Your task to perform on an android device: Show me popular videos on Youtube Image 0: 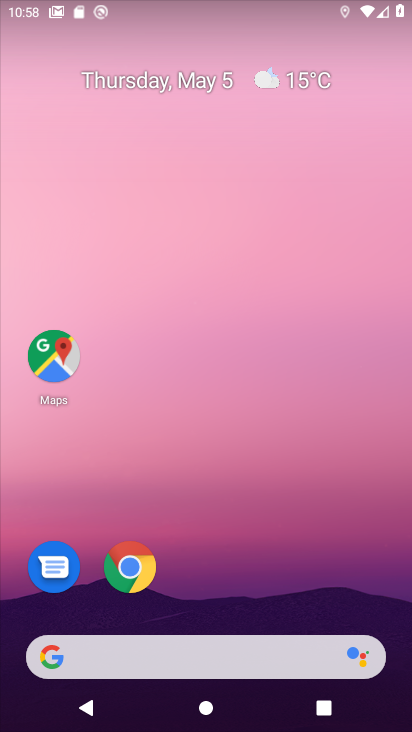
Step 0: drag from (350, 605) to (403, 0)
Your task to perform on an android device: Show me popular videos on Youtube Image 1: 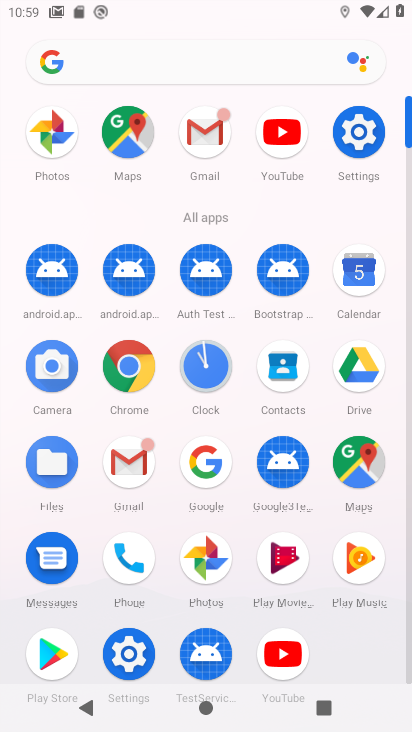
Step 1: click (277, 131)
Your task to perform on an android device: Show me popular videos on Youtube Image 2: 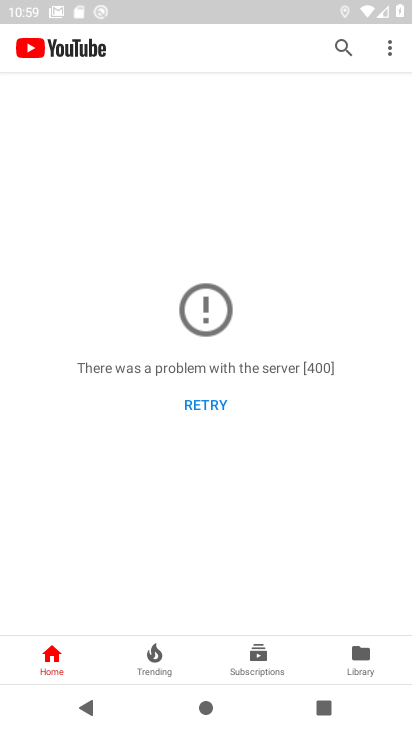
Step 2: task complete